Your task to perform on an android device: toggle priority inbox in the gmail app Image 0: 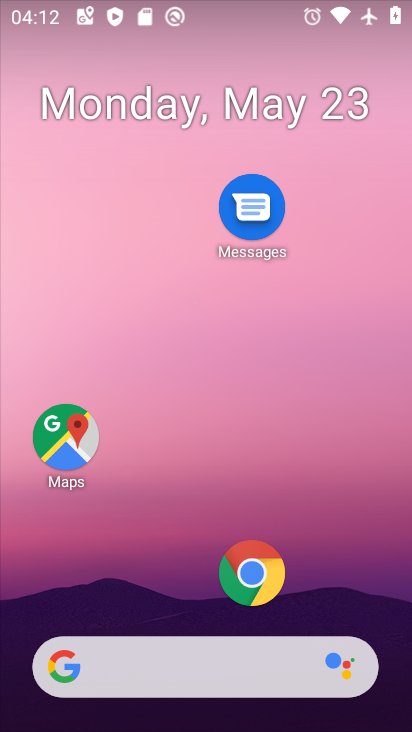
Step 0: drag from (325, 650) to (296, 67)
Your task to perform on an android device: toggle priority inbox in the gmail app Image 1: 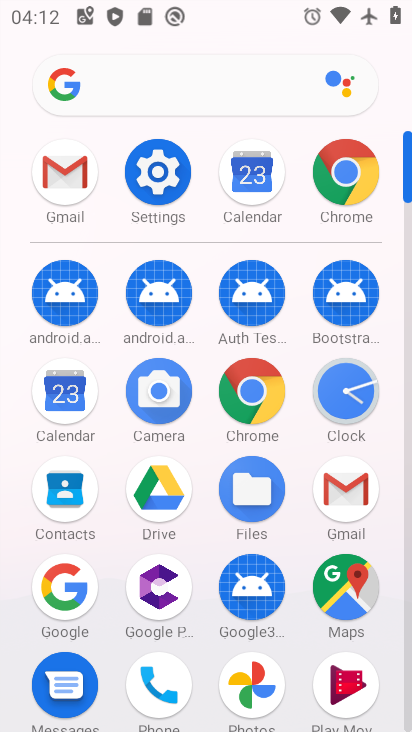
Step 1: click (360, 493)
Your task to perform on an android device: toggle priority inbox in the gmail app Image 2: 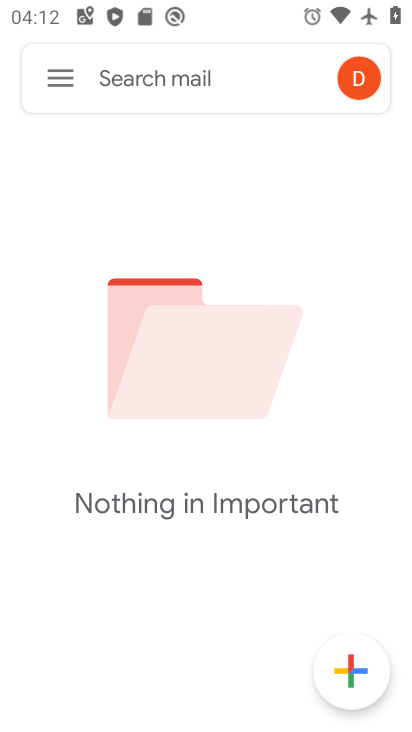
Step 2: click (62, 62)
Your task to perform on an android device: toggle priority inbox in the gmail app Image 3: 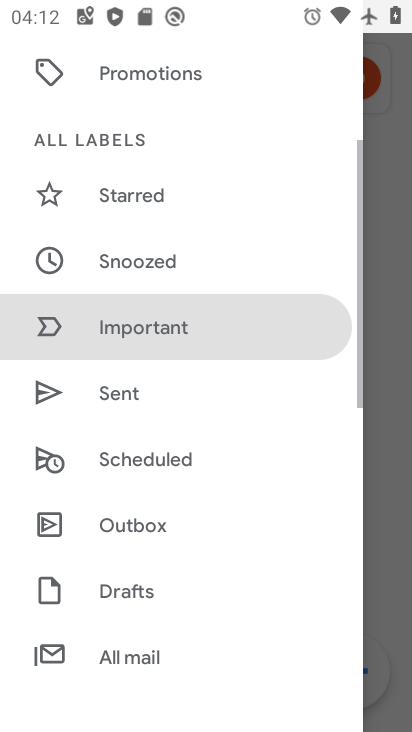
Step 3: drag from (164, 703) to (177, 7)
Your task to perform on an android device: toggle priority inbox in the gmail app Image 4: 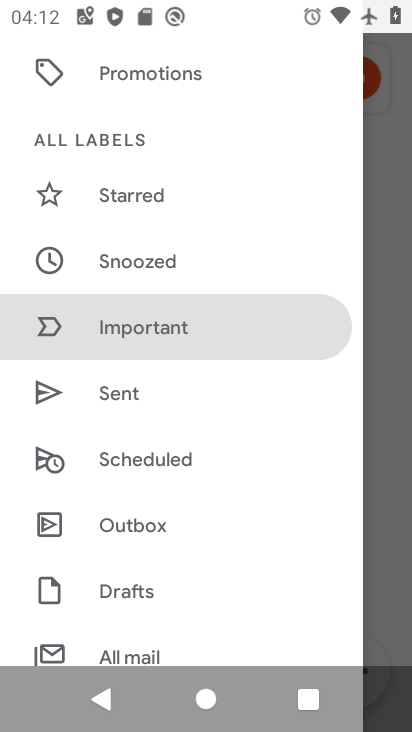
Step 4: drag from (182, 563) to (123, 0)
Your task to perform on an android device: toggle priority inbox in the gmail app Image 5: 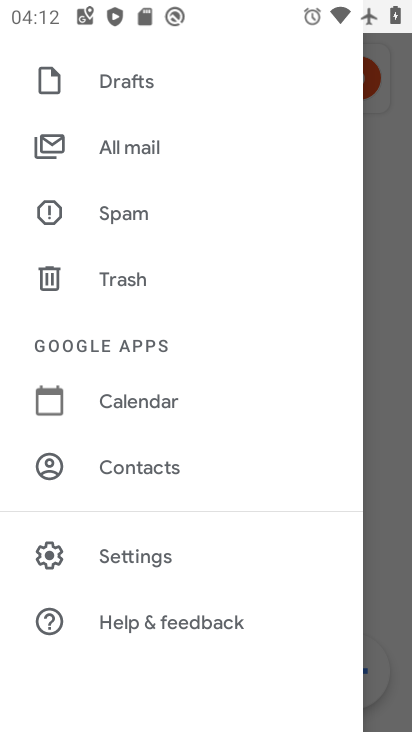
Step 5: click (157, 529)
Your task to perform on an android device: toggle priority inbox in the gmail app Image 6: 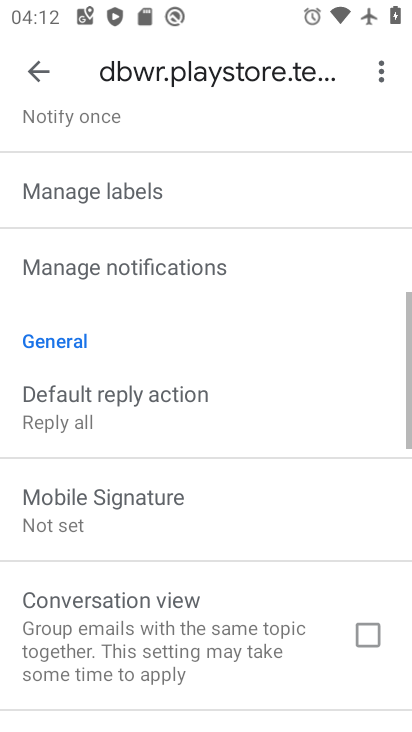
Step 6: drag from (209, 305) to (250, 721)
Your task to perform on an android device: toggle priority inbox in the gmail app Image 7: 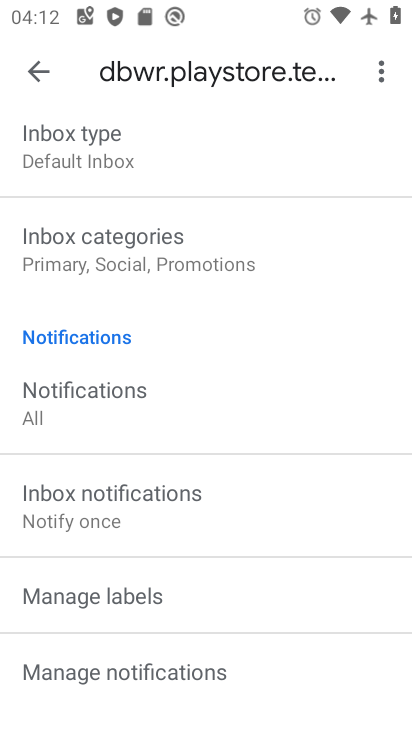
Step 7: drag from (162, 356) to (238, 726)
Your task to perform on an android device: toggle priority inbox in the gmail app Image 8: 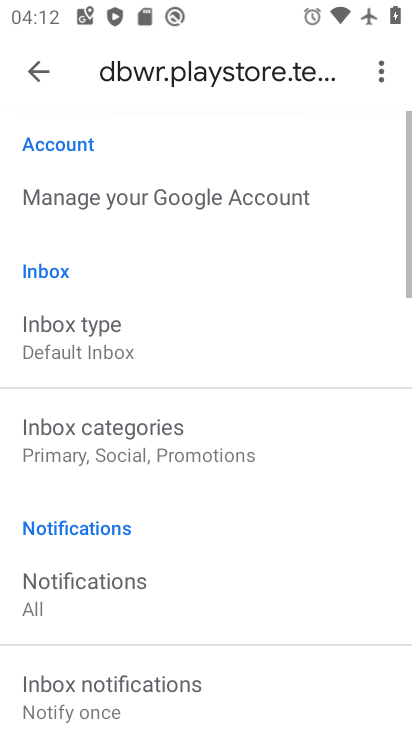
Step 8: drag from (206, 260) to (227, 725)
Your task to perform on an android device: toggle priority inbox in the gmail app Image 9: 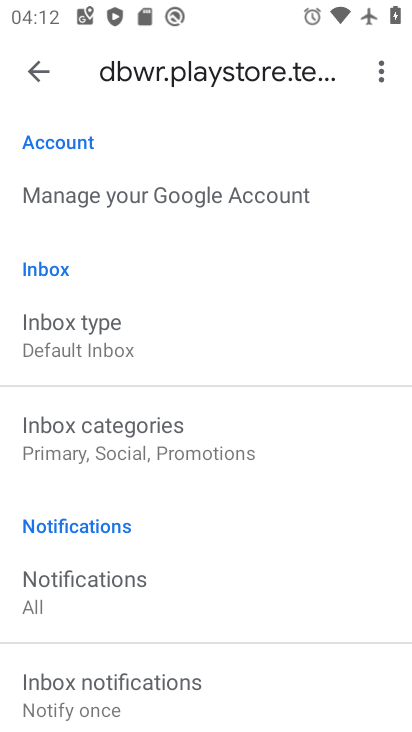
Step 9: click (138, 359)
Your task to perform on an android device: toggle priority inbox in the gmail app Image 10: 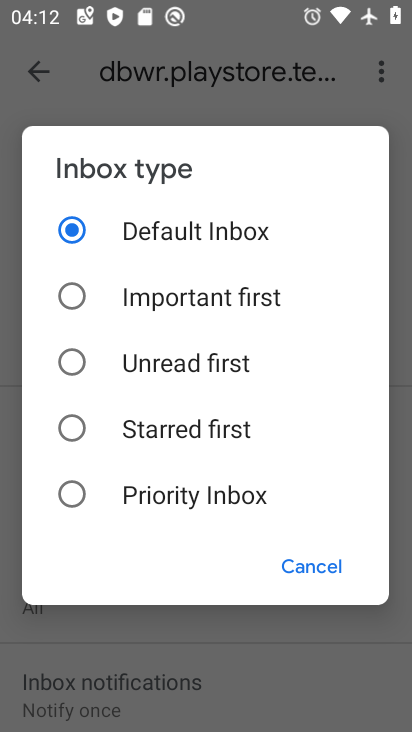
Step 10: click (73, 499)
Your task to perform on an android device: toggle priority inbox in the gmail app Image 11: 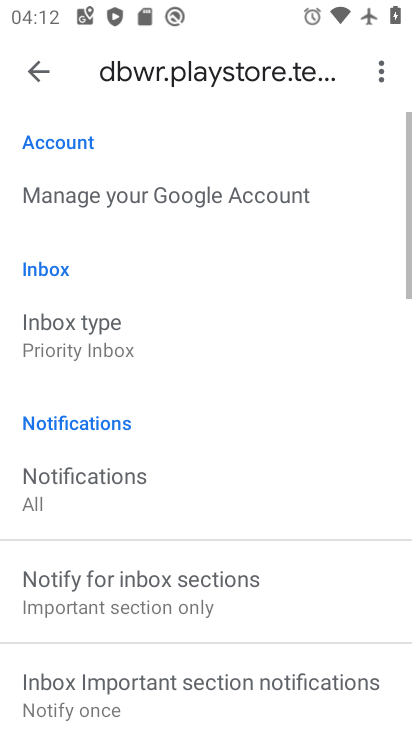
Step 11: task complete